Your task to perform on an android device: Go to accessibility settings Image 0: 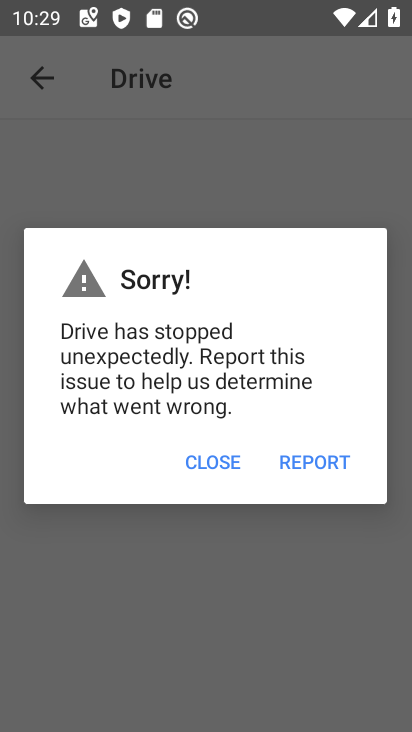
Step 0: press home button
Your task to perform on an android device: Go to accessibility settings Image 1: 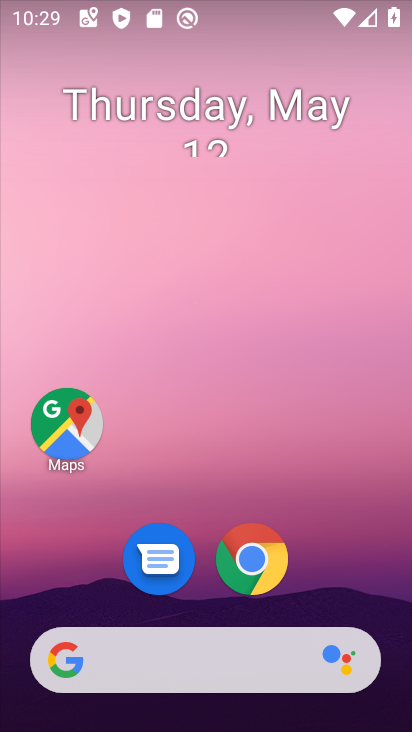
Step 1: drag from (196, 587) to (196, 178)
Your task to perform on an android device: Go to accessibility settings Image 2: 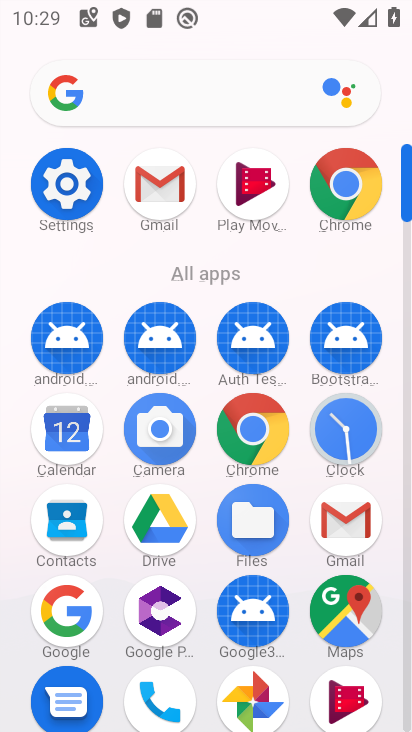
Step 2: click (34, 146)
Your task to perform on an android device: Go to accessibility settings Image 3: 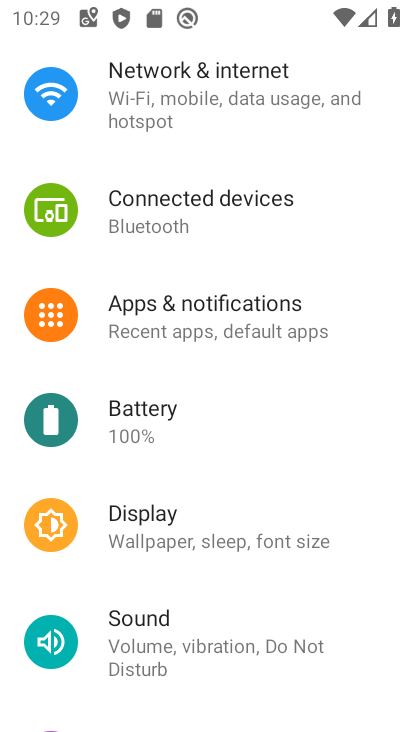
Step 3: drag from (168, 625) to (180, 267)
Your task to perform on an android device: Go to accessibility settings Image 4: 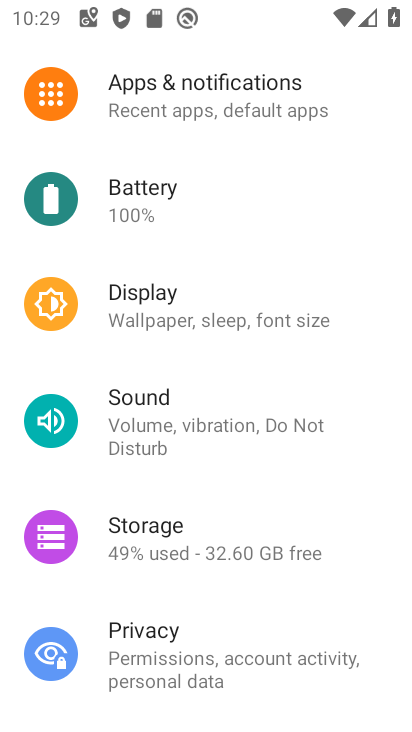
Step 4: drag from (218, 617) to (221, 317)
Your task to perform on an android device: Go to accessibility settings Image 5: 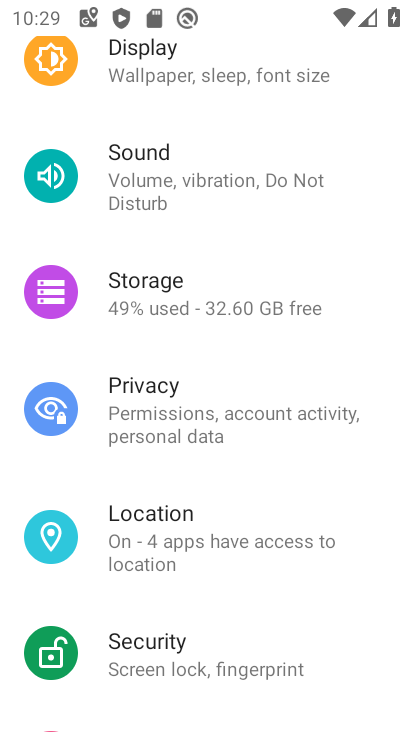
Step 5: drag from (228, 660) to (215, 309)
Your task to perform on an android device: Go to accessibility settings Image 6: 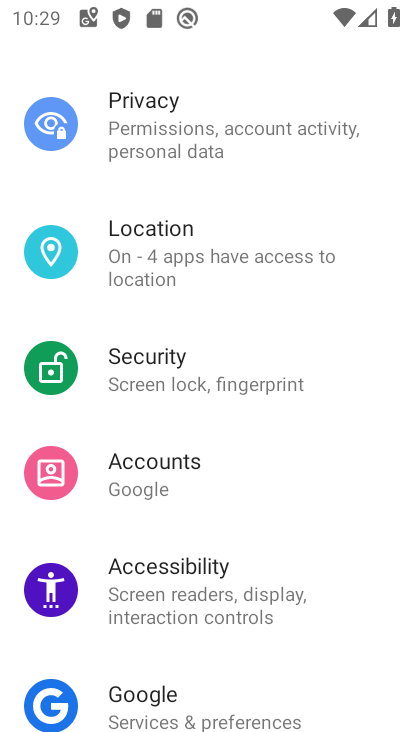
Step 6: click (199, 580)
Your task to perform on an android device: Go to accessibility settings Image 7: 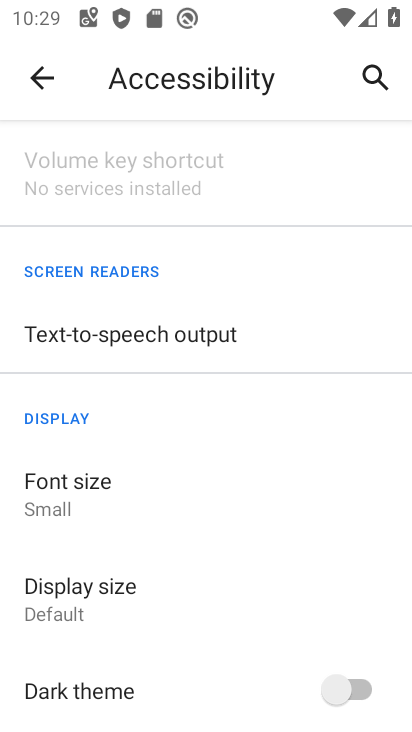
Step 7: task complete